Your task to perform on an android device: What's the top post on reddit today? Image 0: 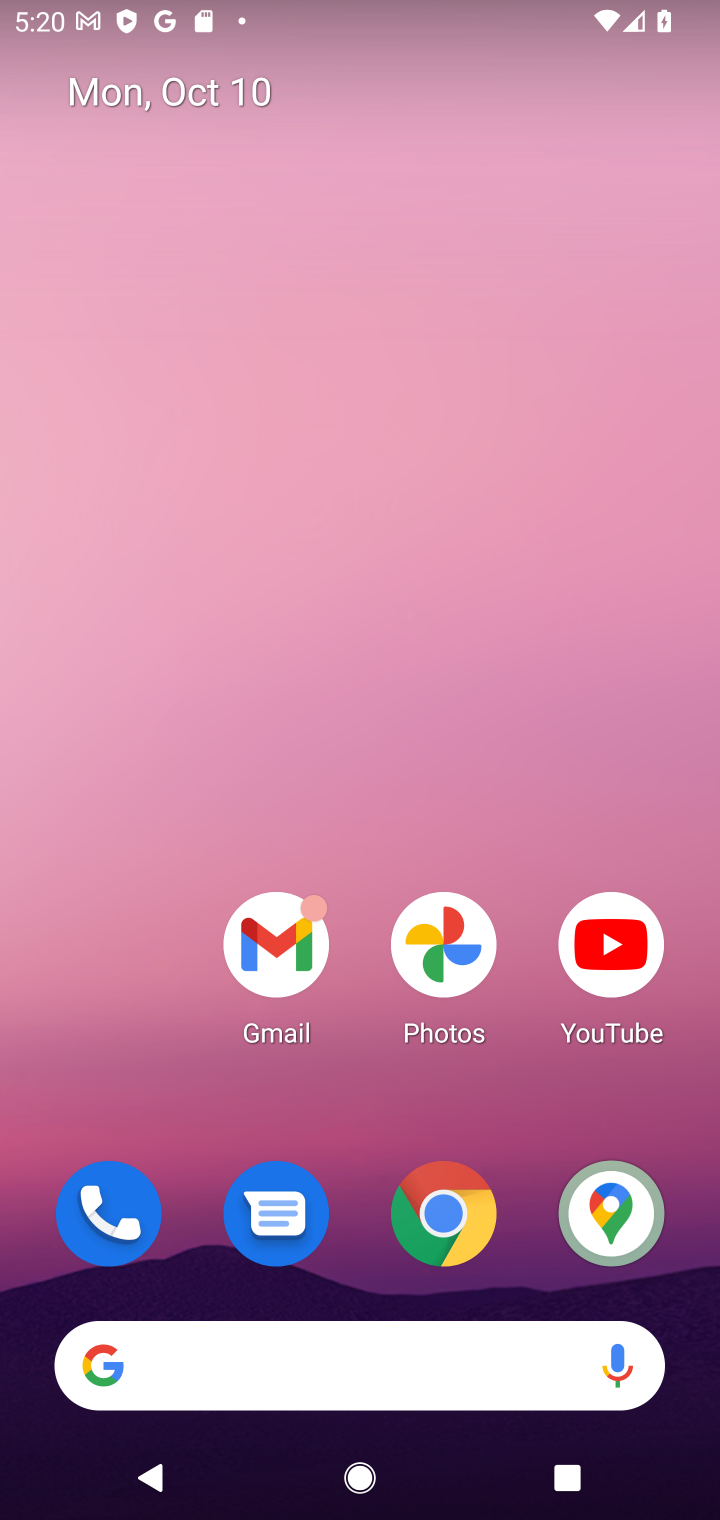
Step 0: click (337, 1353)
Your task to perform on an android device: What's the top post on reddit today? Image 1: 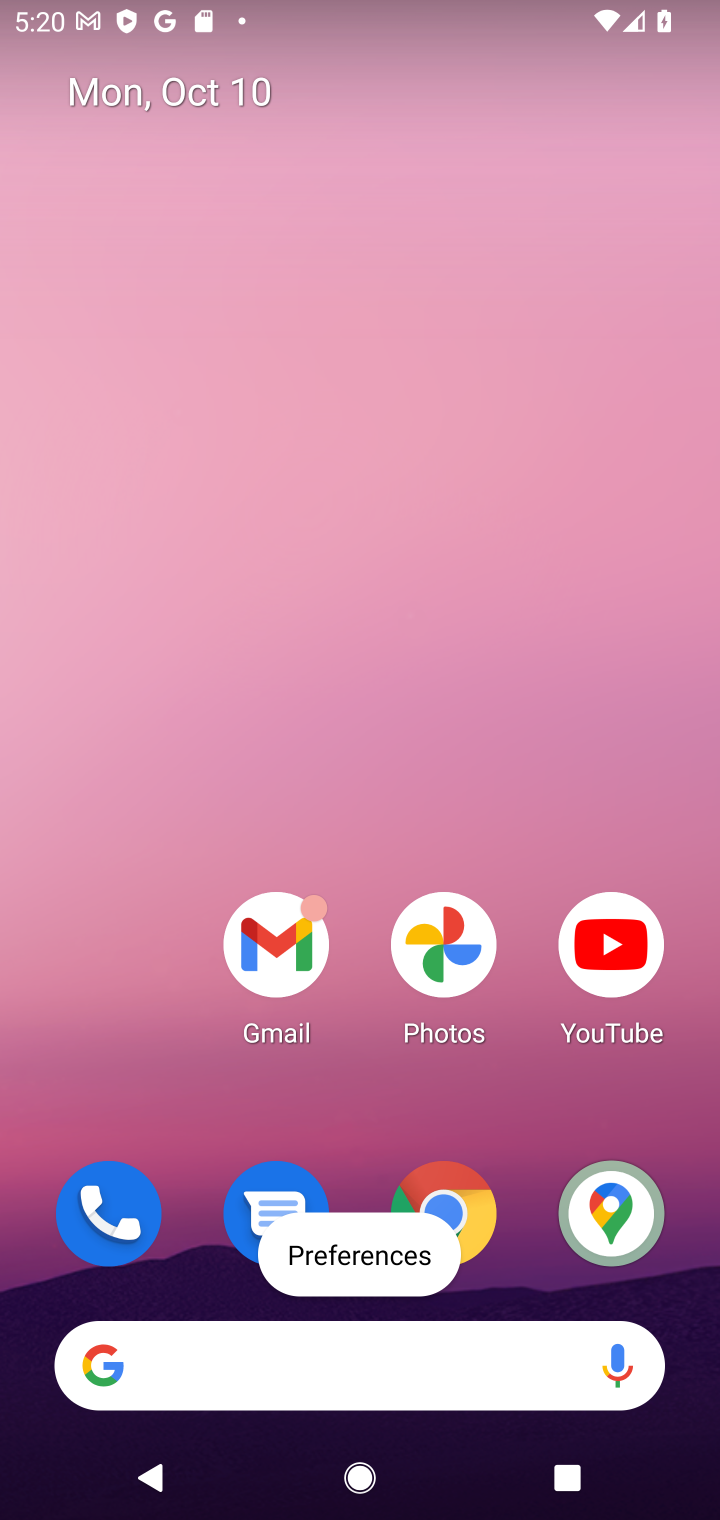
Step 1: click (354, 1355)
Your task to perform on an android device: What's the top post on reddit today? Image 2: 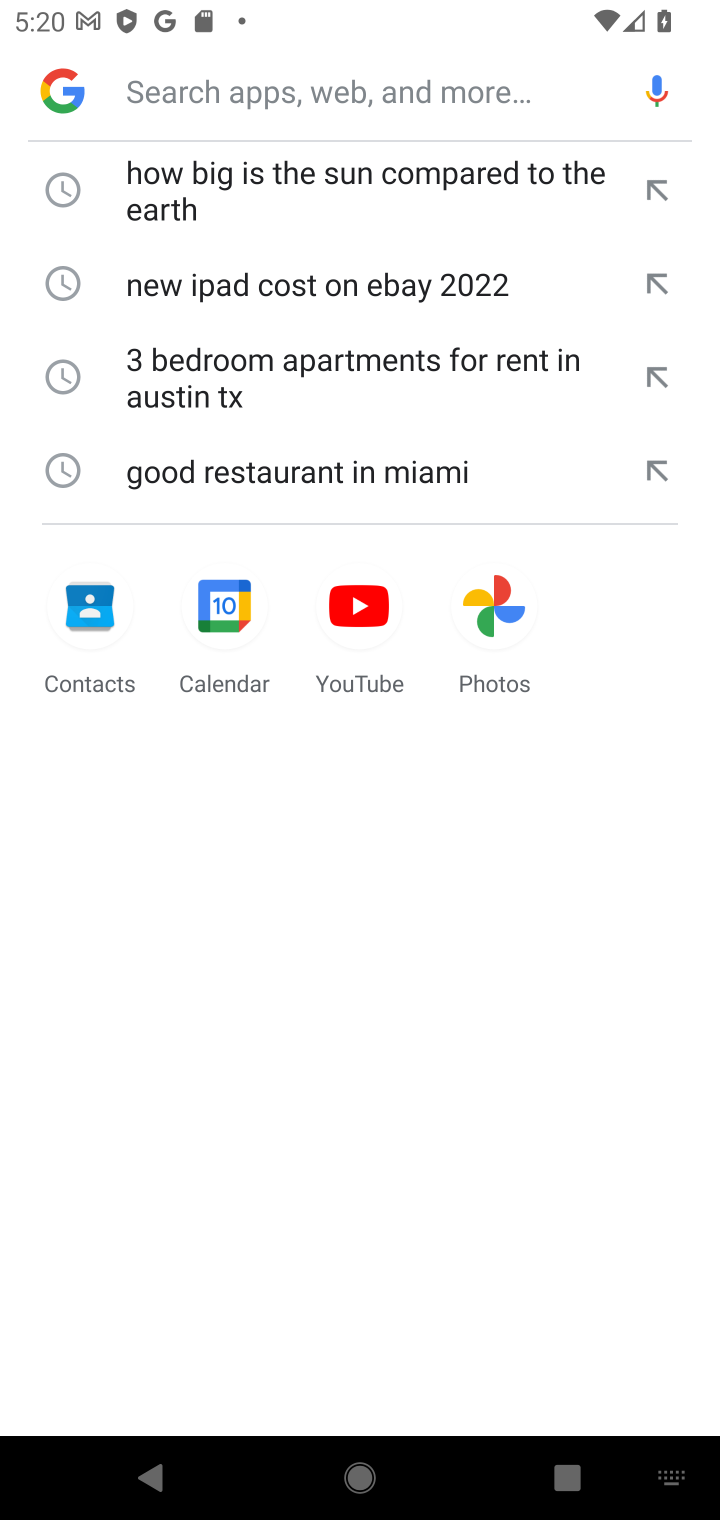
Step 2: type " reddit"
Your task to perform on an android device: What's the top post on reddit today? Image 3: 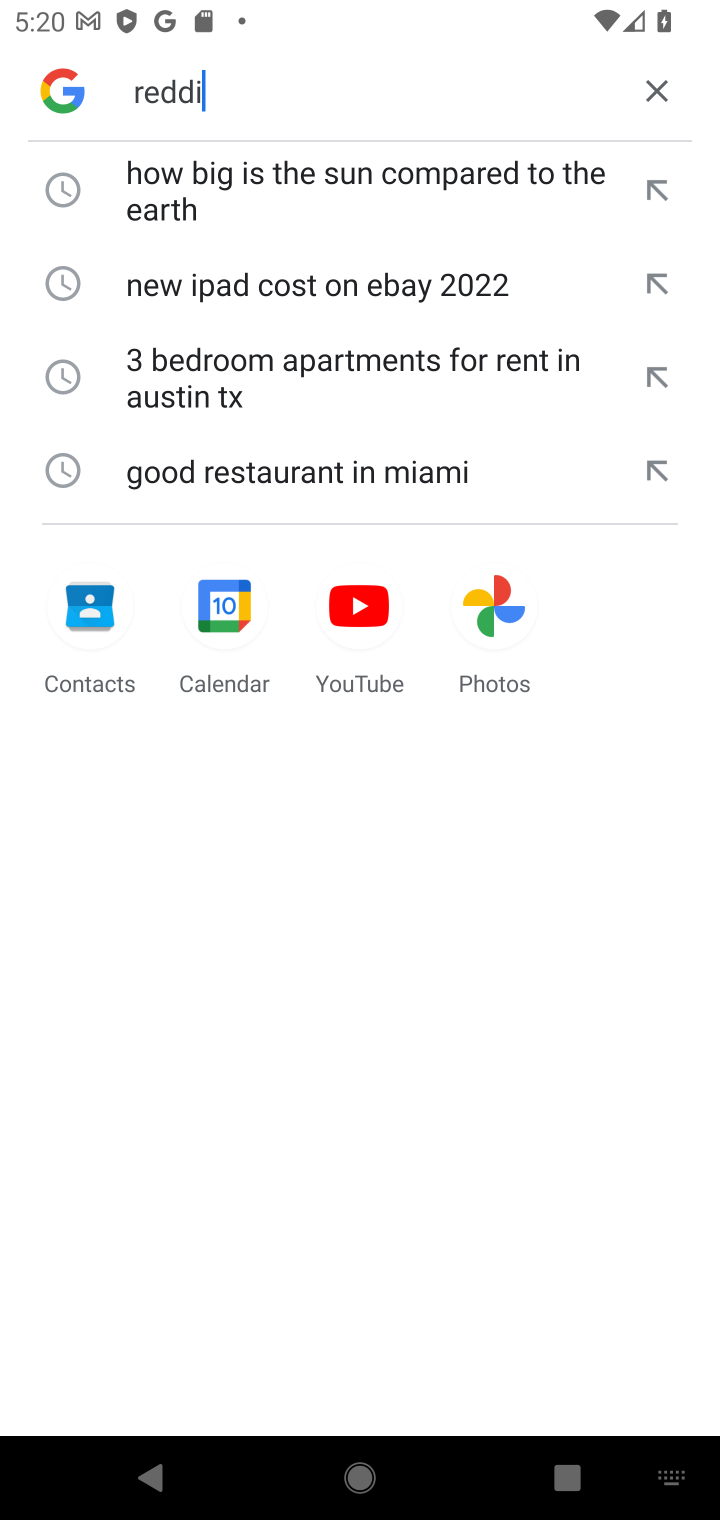
Step 3: type ""
Your task to perform on an android device: What's the top post on reddit today? Image 4: 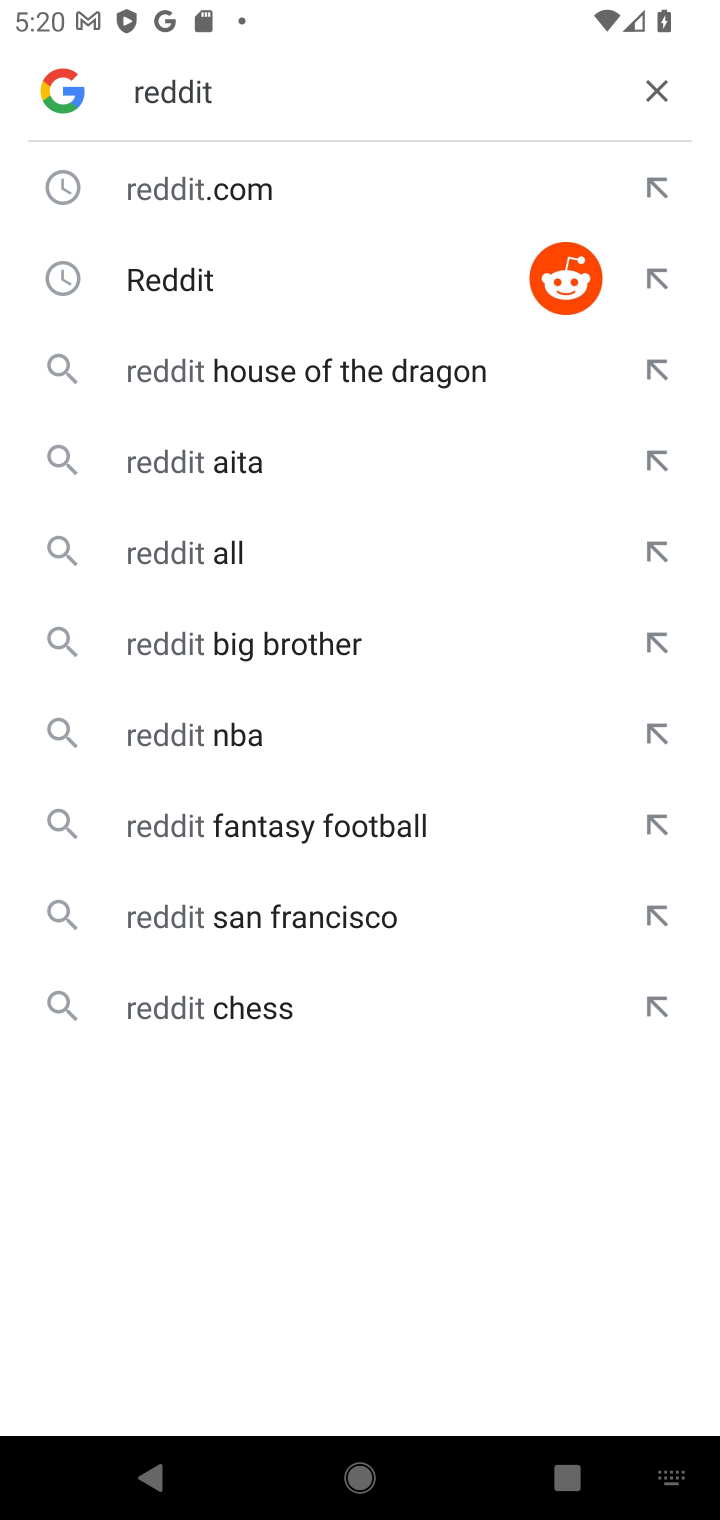
Step 4: click (212, 283)
Your task to perform on an android device: What's the top post on reddit today? Image 5: 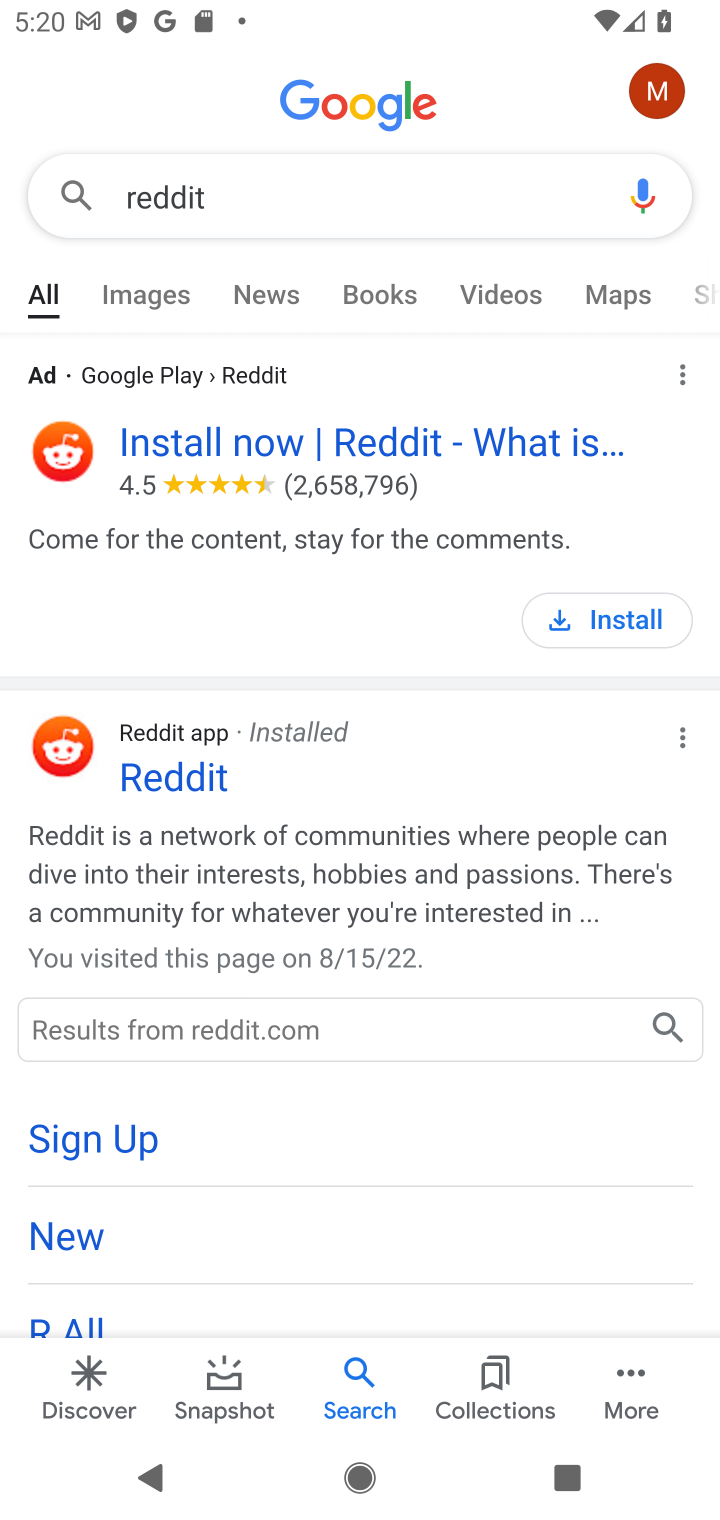
Step 5: click (149, 788)
Your task to perform on an android device: What's the top post on reddit today? Image 6: 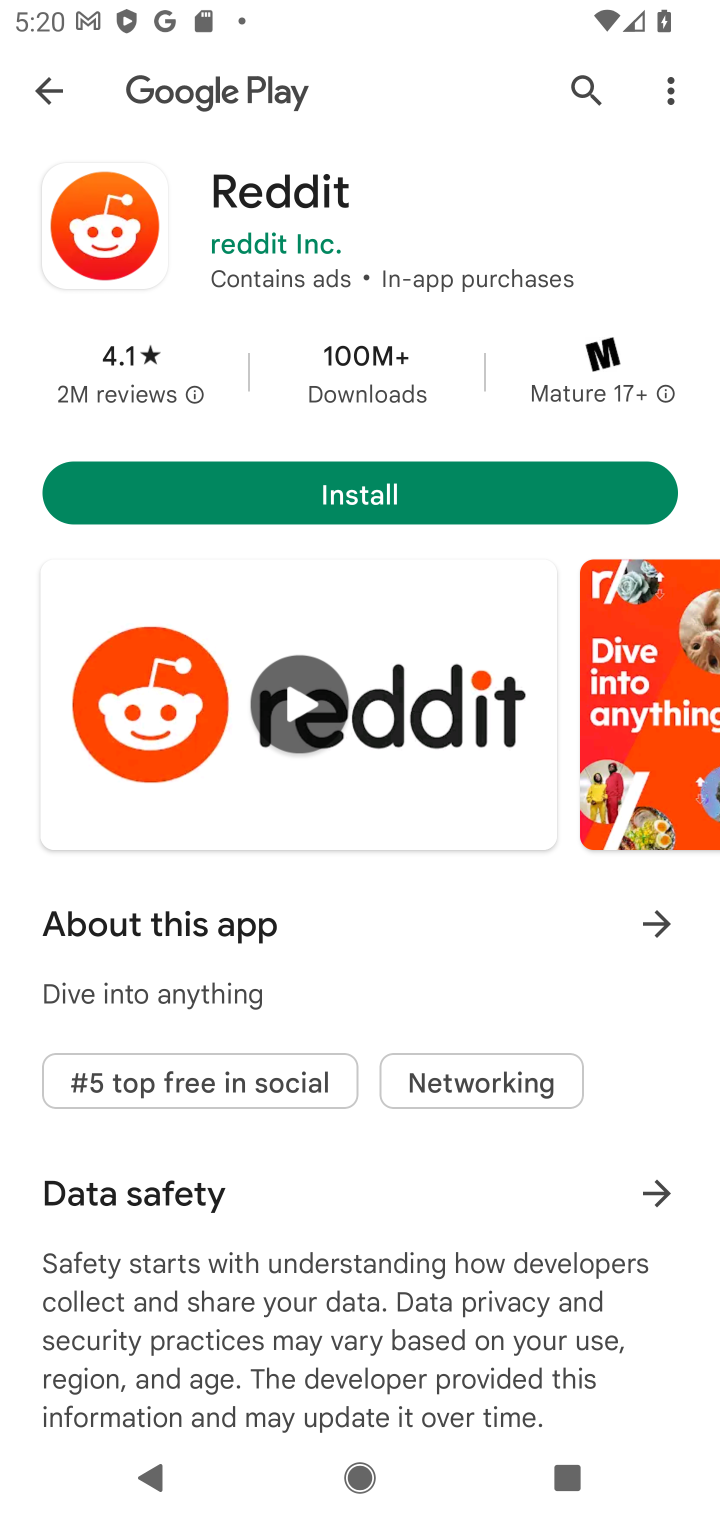
Step 6: click (22, 74)
Your task to perform on an android device: What's the top post on reddit today? Image 7: 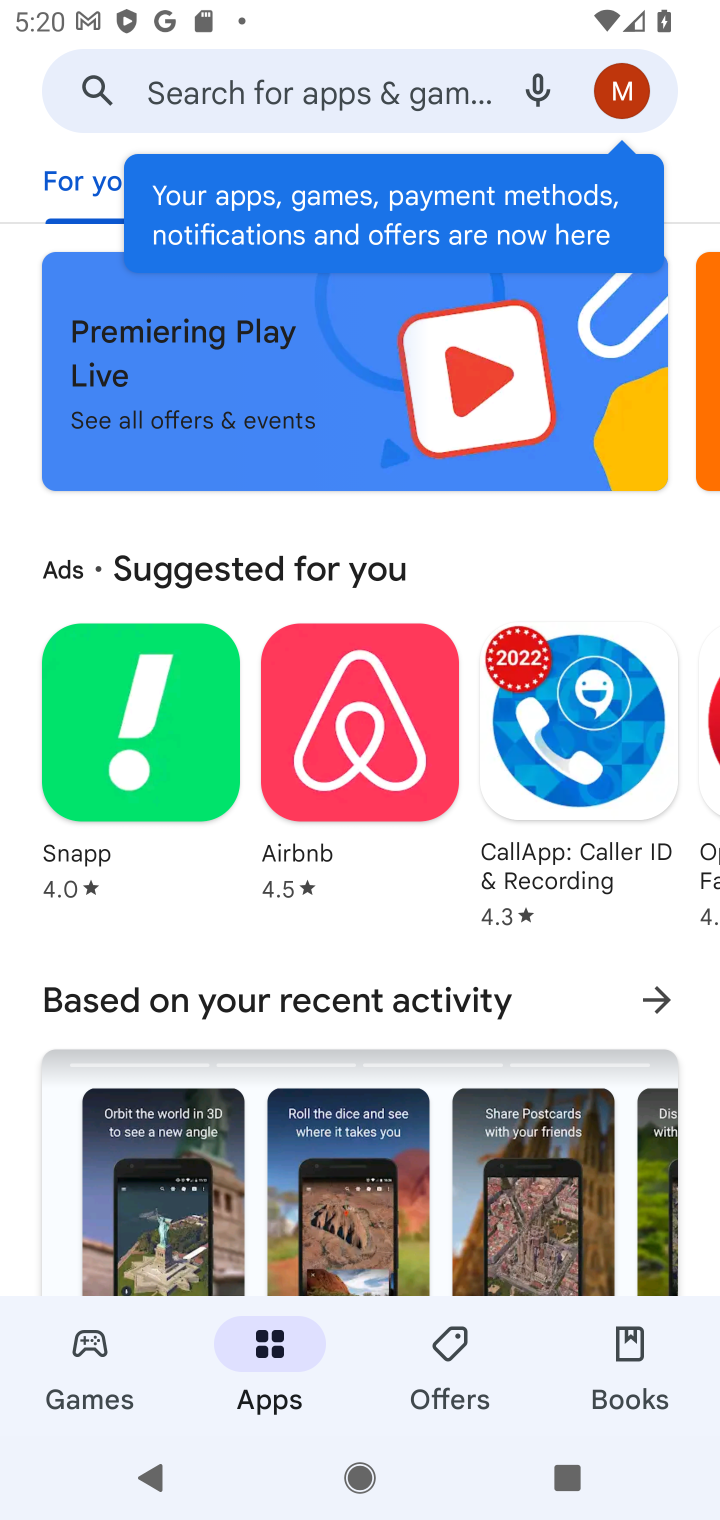
Step 7: press back button
Your task to perform on an android device: What's the top post on reddit today? Image 8: 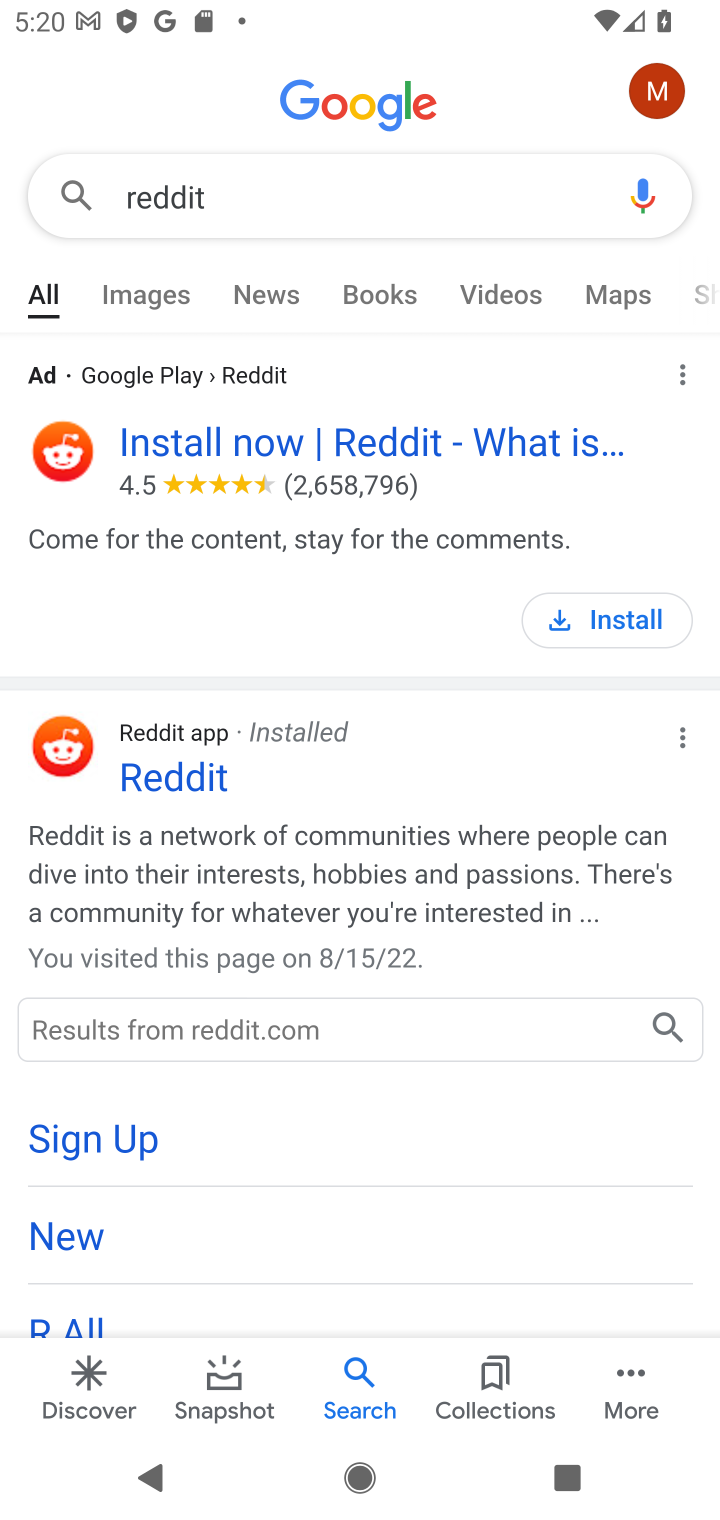
Step 8: click (395, 182)
Your task to perform on an android device: What's the top post on reddit today? Image 9: 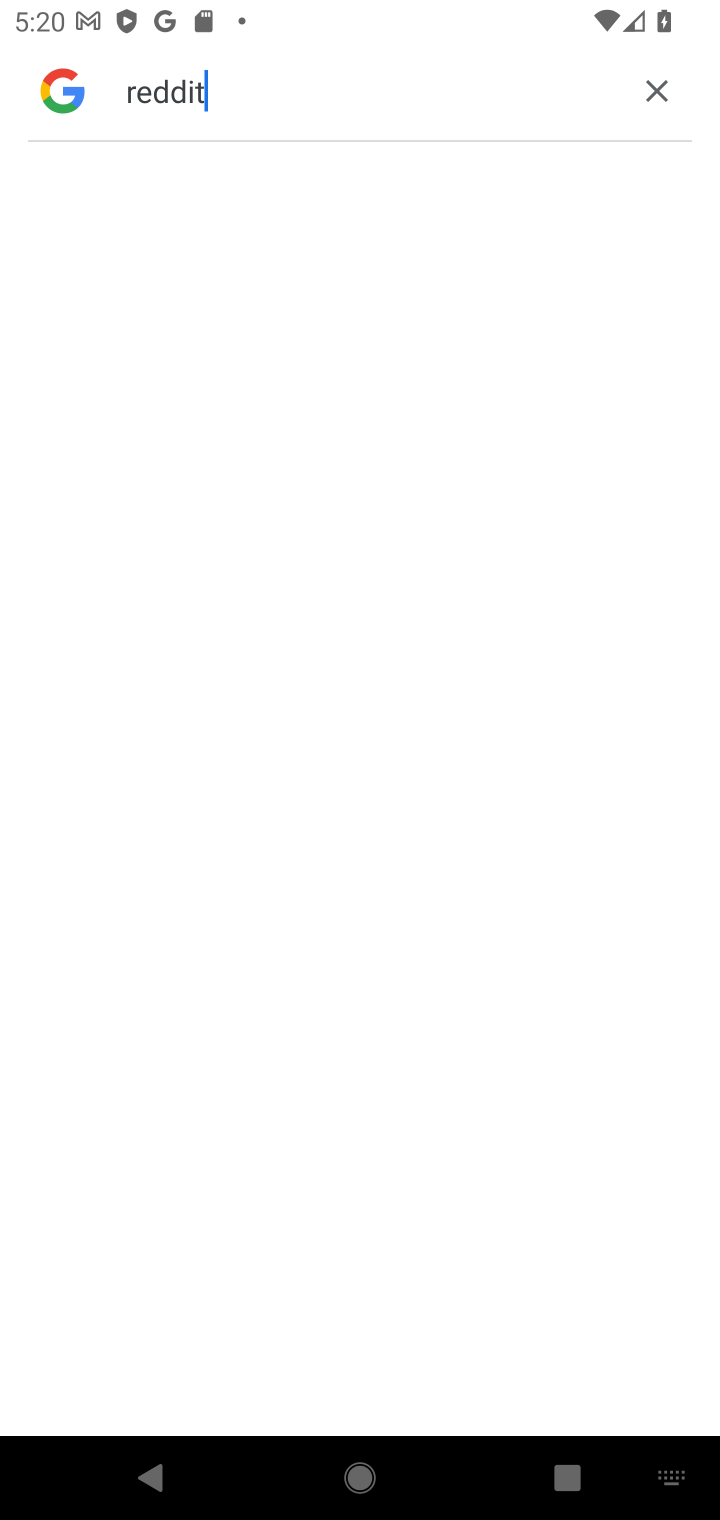
Step 9: click (639, 82)
Your task to perform on an android device: What's the top post on reddit today? Image 10: 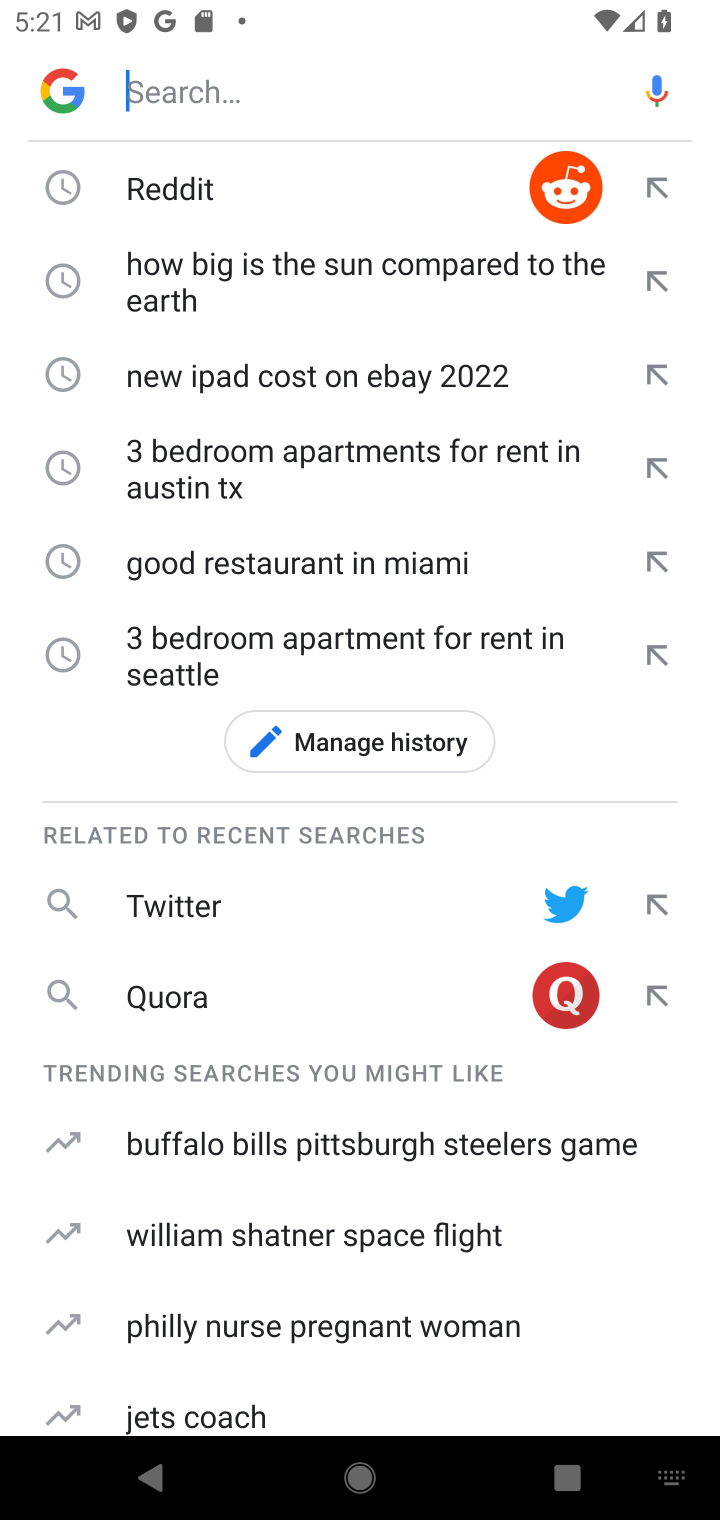
Step 10: type "reddit today"
Your task to perform on an android device: What's the top post on reddit today? Image 11: 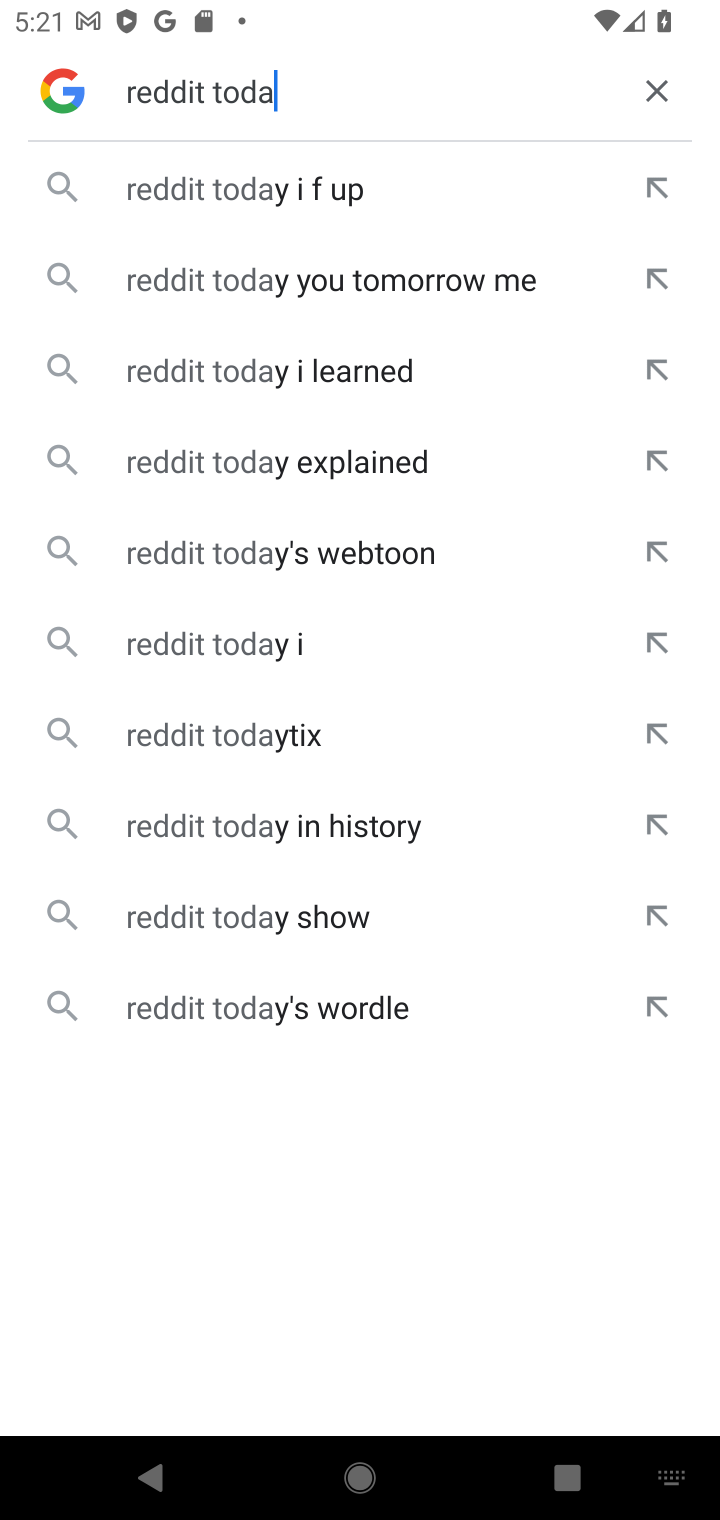
Step 11: type ""
Your task to perform on an android device: What's the top post on reddit today? Image 12: 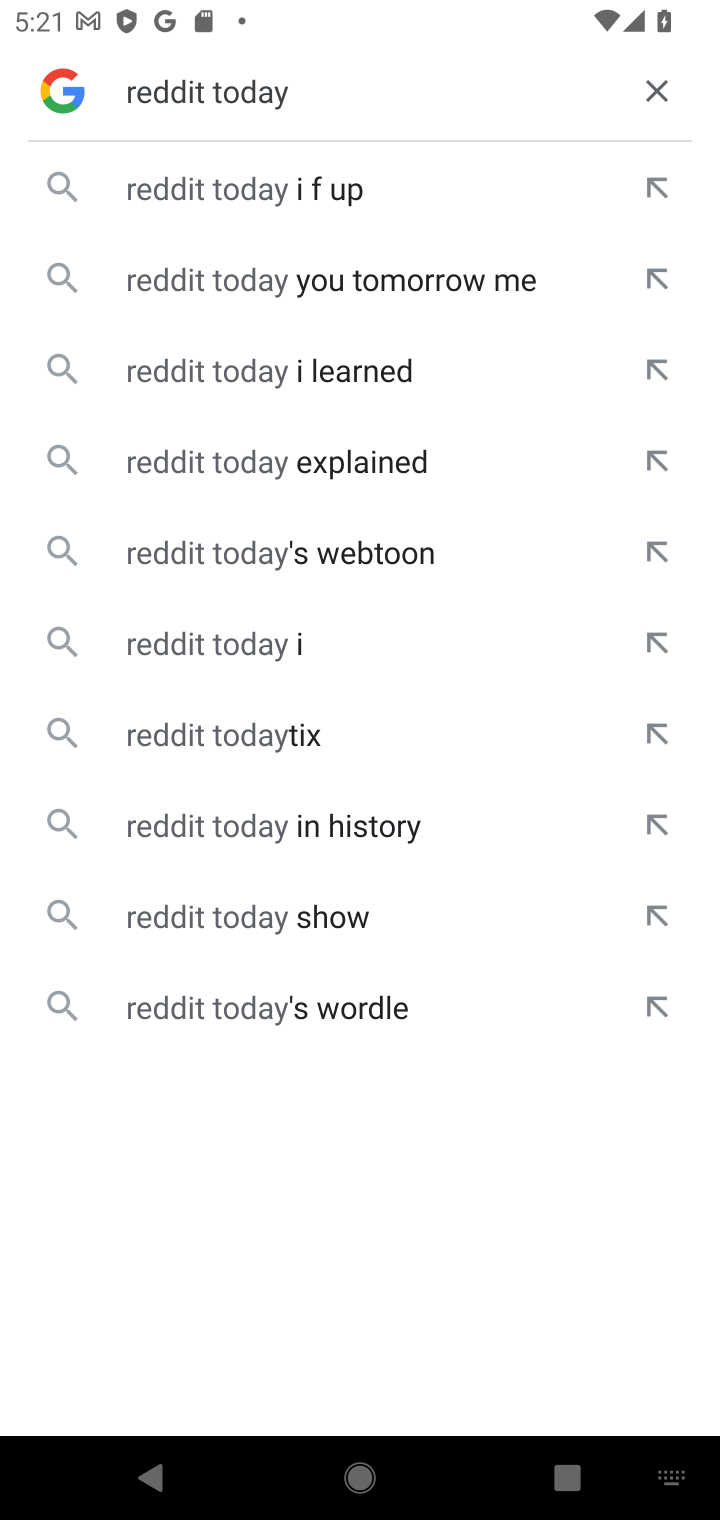
Step 12: click (299, 195)
Your task to perform on an android device: What's the top post on reddit today? Image 13: 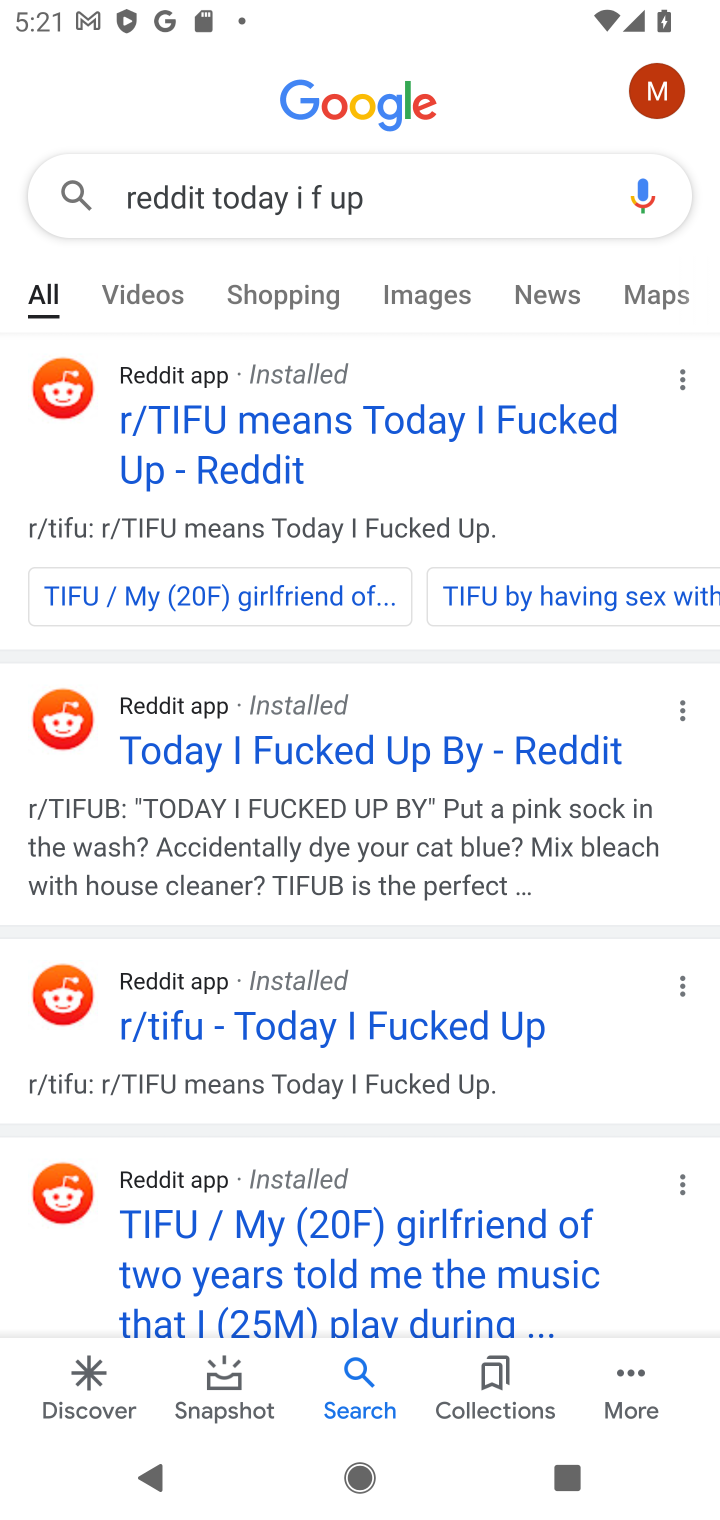
Step 13: task complete